Your task to perform on an android device: Is it going to rain tomorrow? Image 0: 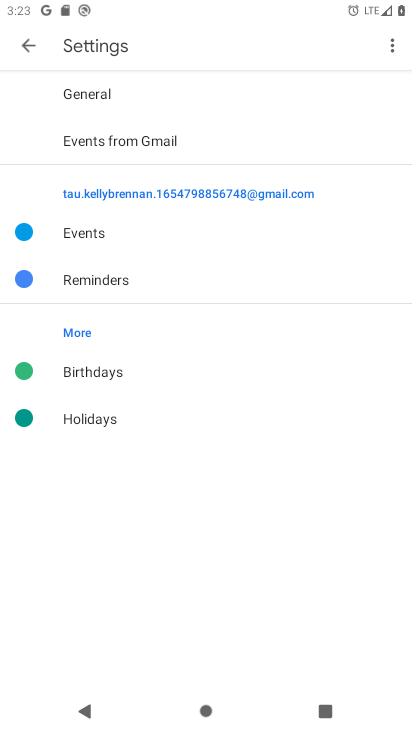
Step 0: press home button
Your task to perform on an android device: Is it going to rain tomorrow? Image 1: 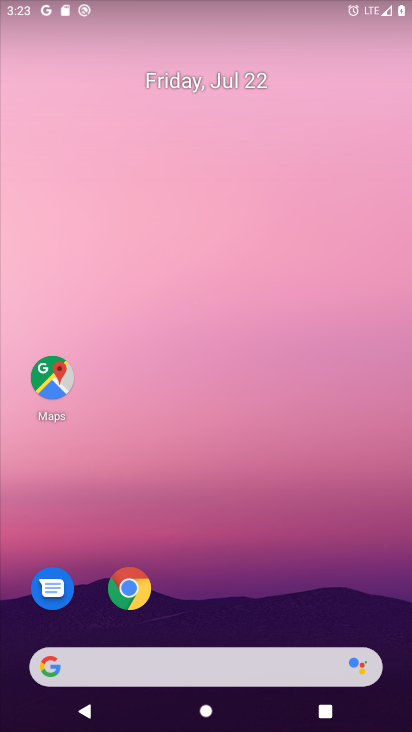
Step 1: drag from (275, 536) to (292, 27)
Your task to perform on an android device: Is it going to rain tomorrow? Image 2: 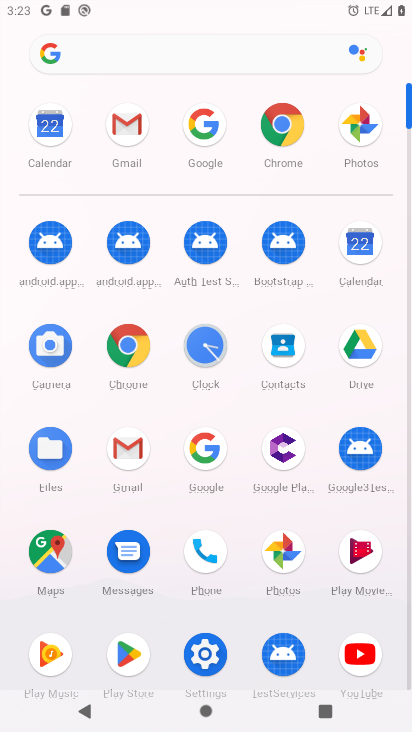
Step 2: click (121, 333)
Your task to perform on an android device: Is it going to rain tomorrow? Image 3: 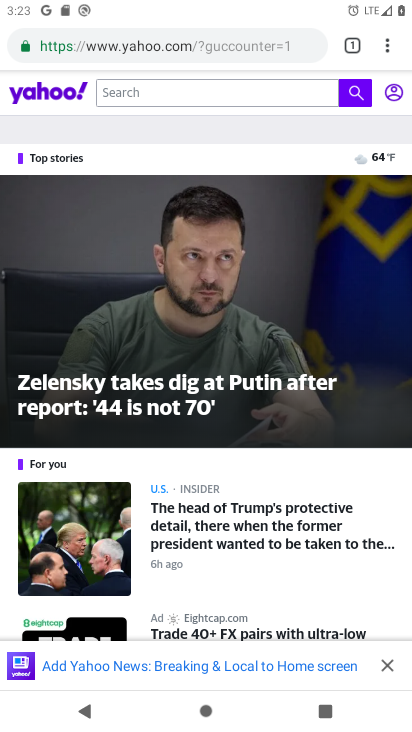
Step 3: click (183, 41)
Your task to perform on an android device: Is it going to rain tomorrow? Image 4: 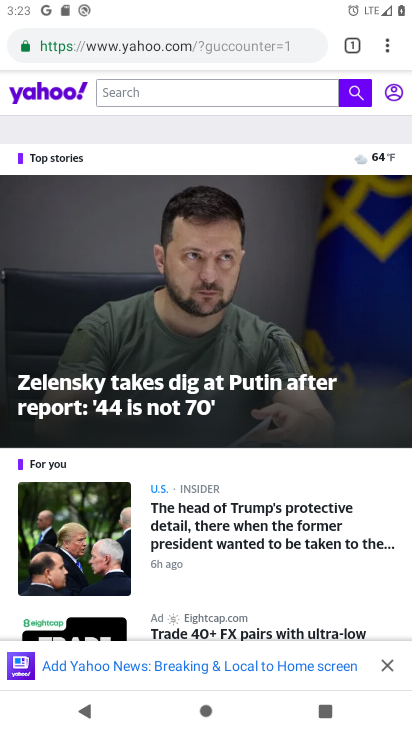
Step 4: click (183, 41)
Your task to perform on an android device: Is it going to rain tomorrow? Image 5: 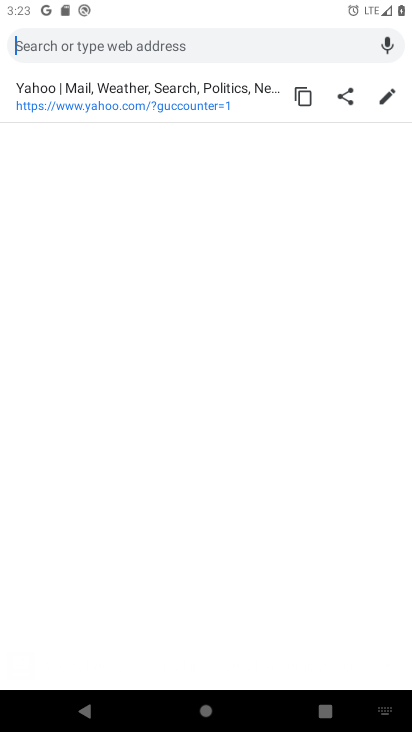
Step 5: type "Is it going to rain tomorrow?"
Your task to perform on an android device: Is it going to rain tomorrow? Image 6: 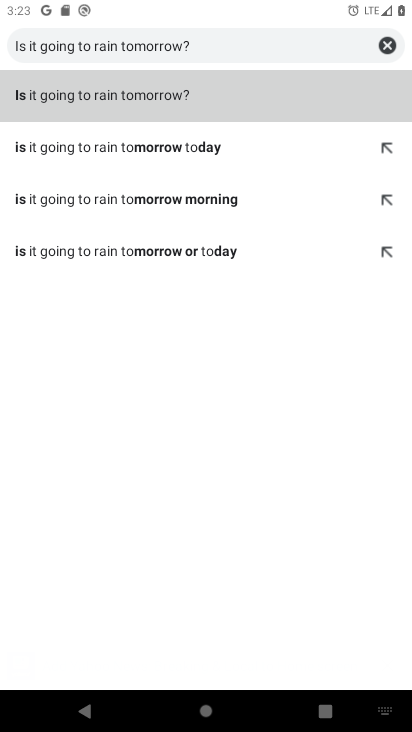
Step 6: click (85, 89)
Your task to perform on an android device: Is it going to rain tomorrow? Image 7: 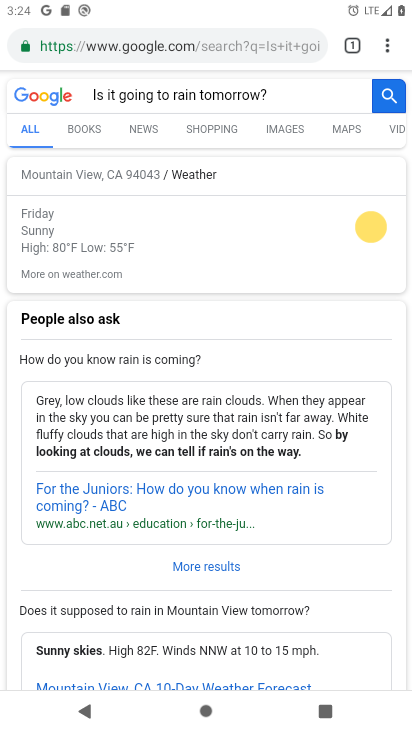
Step 7: task complete